Your task to perform on an android device: find which apps use the phone's location Image 0: 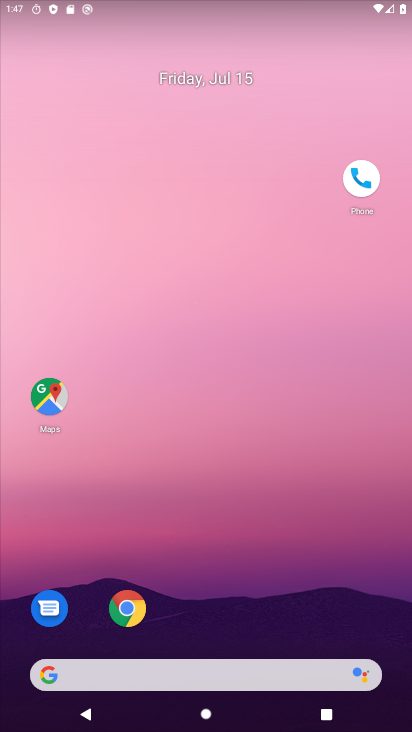
Step 0: drag from (216, 617) to (288, 701)
Your task to perform on an android device: find which apps use the phone's location Image 1: 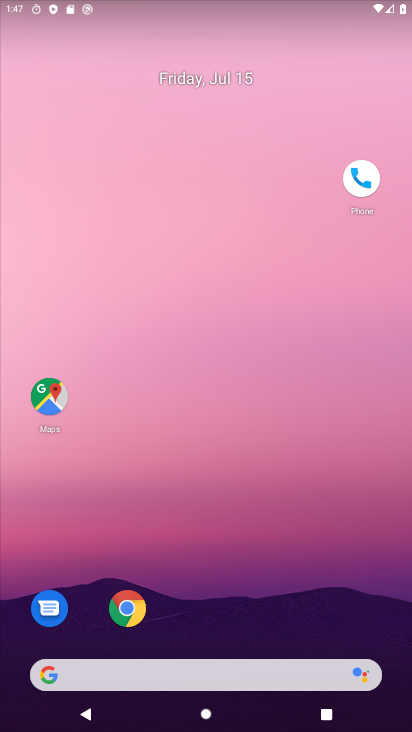
Step 1: drag from (206, 645) to (303, 67)
Your task to perform on an android device: find which apps use the phone's location Image 2: 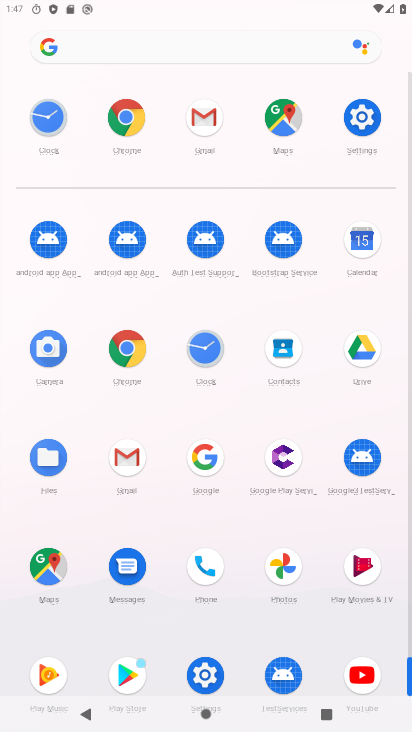
Step 2: click (363, 120)
Your task to perform on an android device: find which apps use the phone's location Image 3: 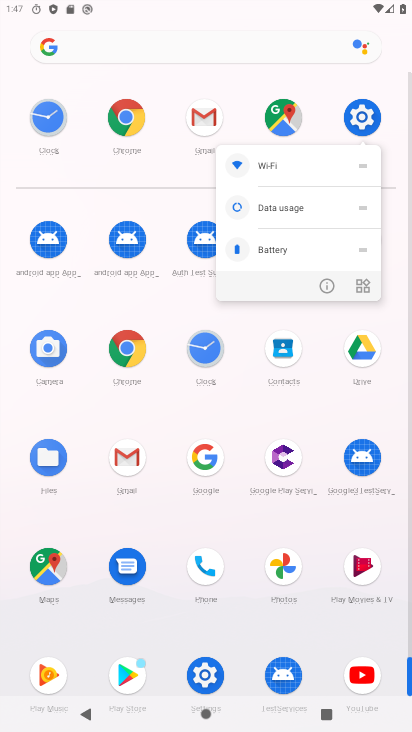
Step 3: click (327, 278)
Your task to perform on an android device: find which apps use the phone's location Image 4: 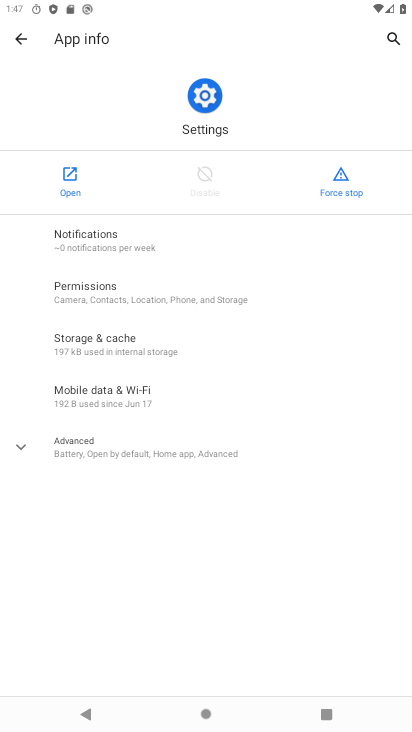
Step 4: click (87, 183)
Your task to perform on an android device: find which apps use the phone's location Image 5: 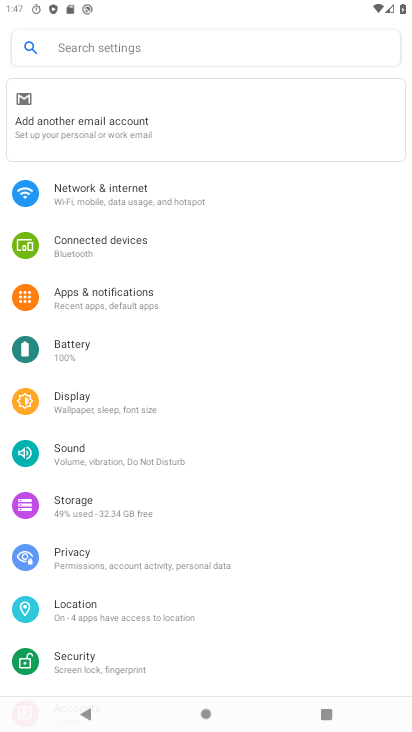
Step 5: click (106, 301)
Your task to perform on an android device: find which apps use the phone's location Image 6: 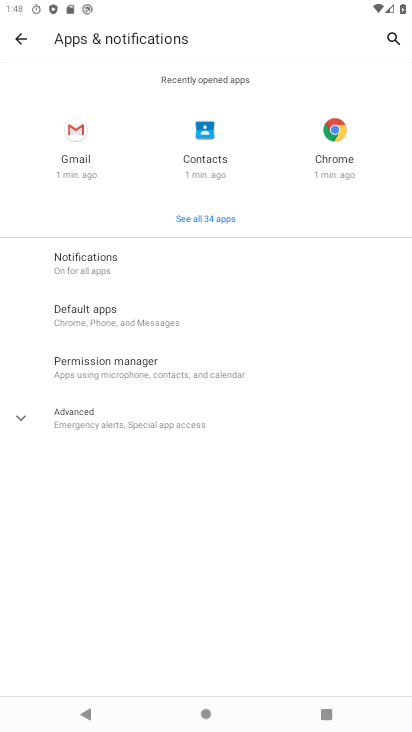
Step 6: click (116, 426)
Your task to perform on an android device: find which apps use the phone's location Image 7: 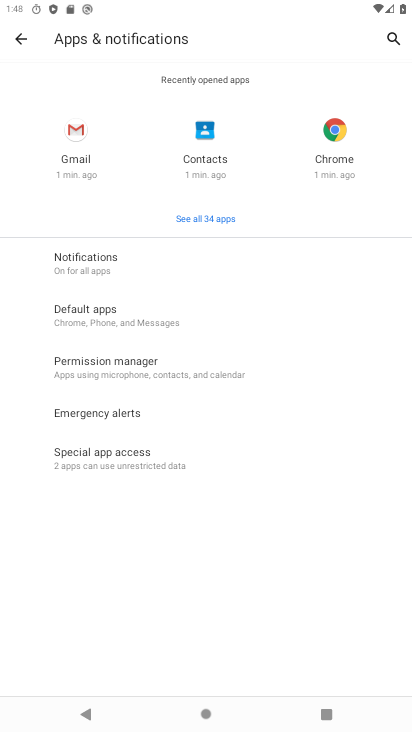
Step 7: click (34, 44)
Your task to perform on an android device: find which apps use the phone's location Image 8: 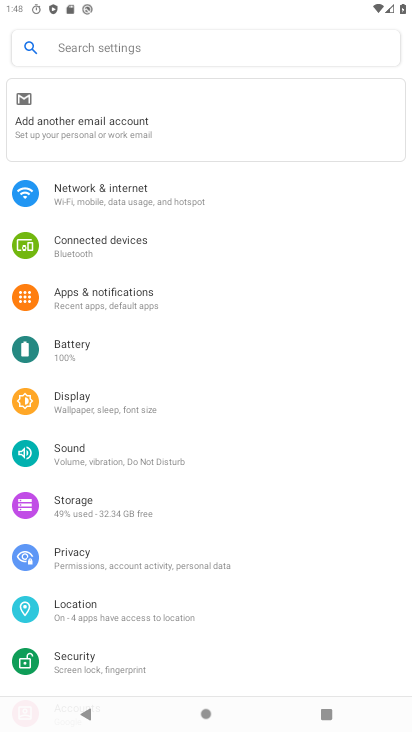
Step 8: click (122, 618)
Your task to perform on an android device: find which apps use the phone's location Image 9: 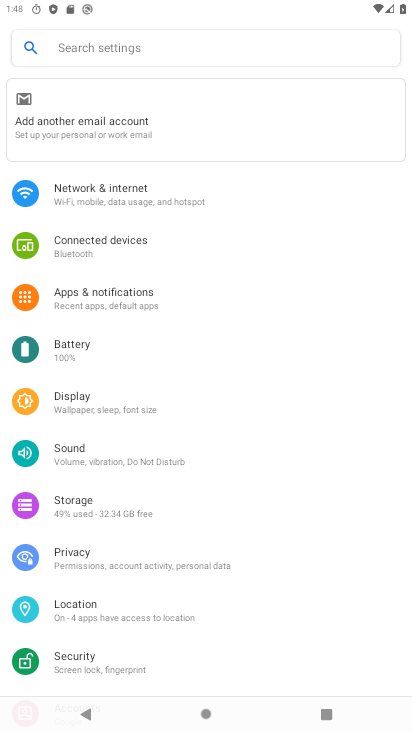
Step 9: click (118, 612)
Your task to perform on an android device: find which apps use the phone's location Image 10: 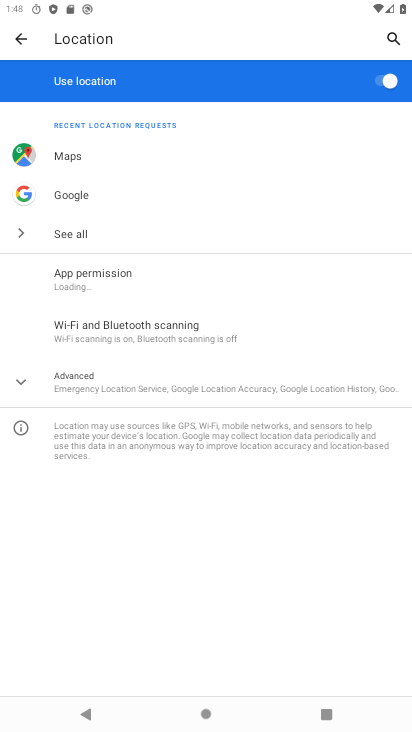
Step 10: click (95, 365)
Your task to perform on an android device: find which apps use the phone's location Image 11: 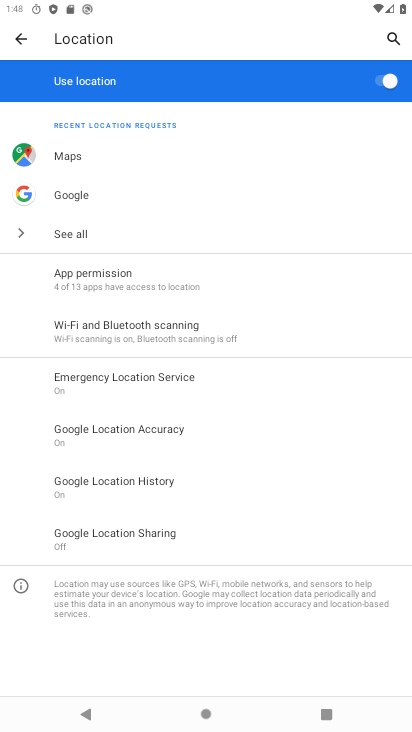
Step 11: click (132, 290)
Your task to perform on an android device: find which apps use the phone's location Image 12: 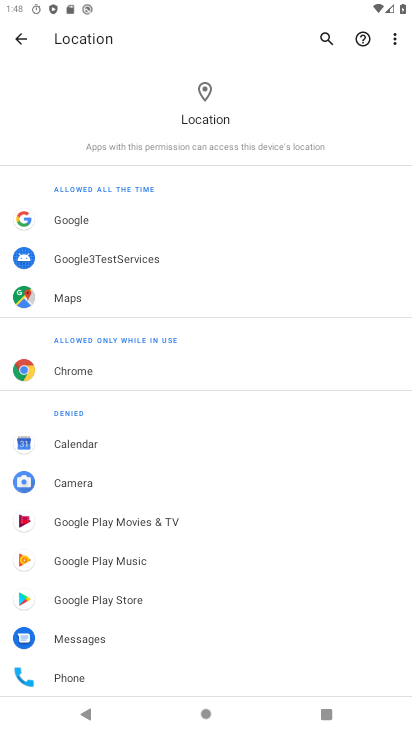
Step 12: task complete